Your task to perform on an android device: Open maps Image 0: 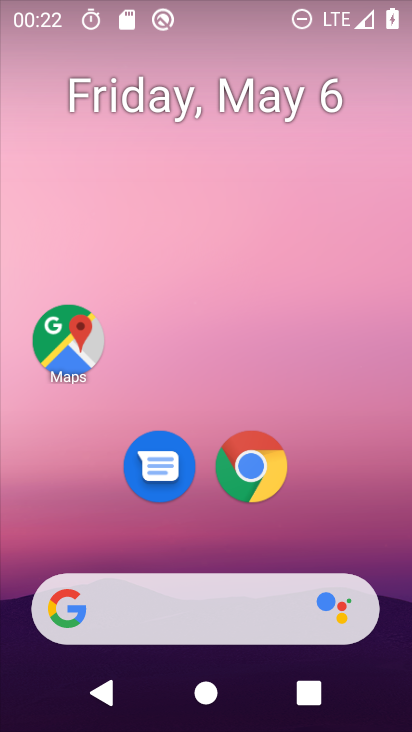
Step 0: click (73, 339)
Your task to perform on an android device: Open maps Image 1: 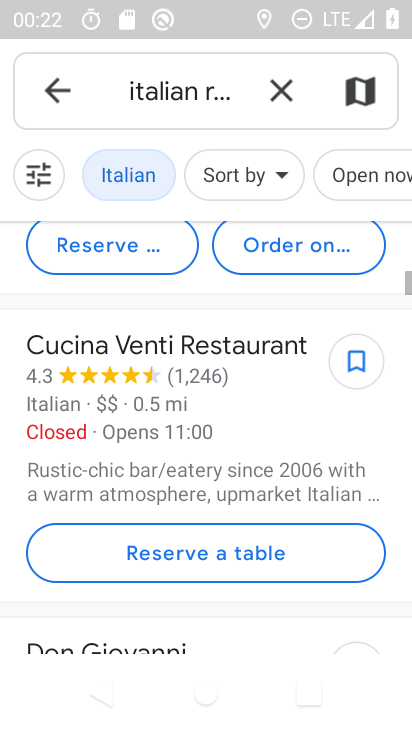
Step 1: click (283, 89)
Your task to perform on an android device: Open maps Image 2: 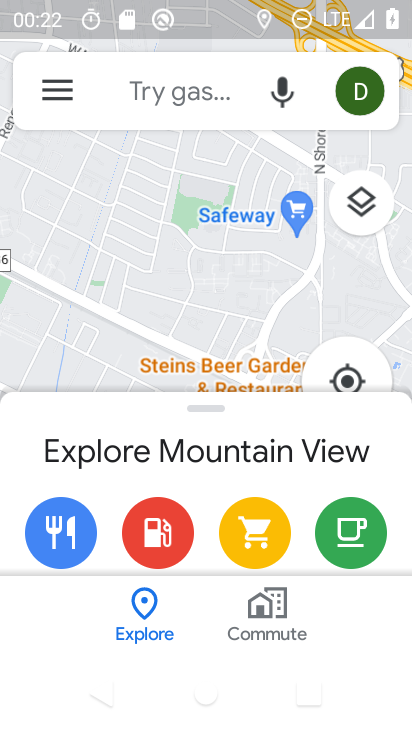
Step 2: task complete